Your task to perform on an android device: turn off notifications in google photos Image 0: 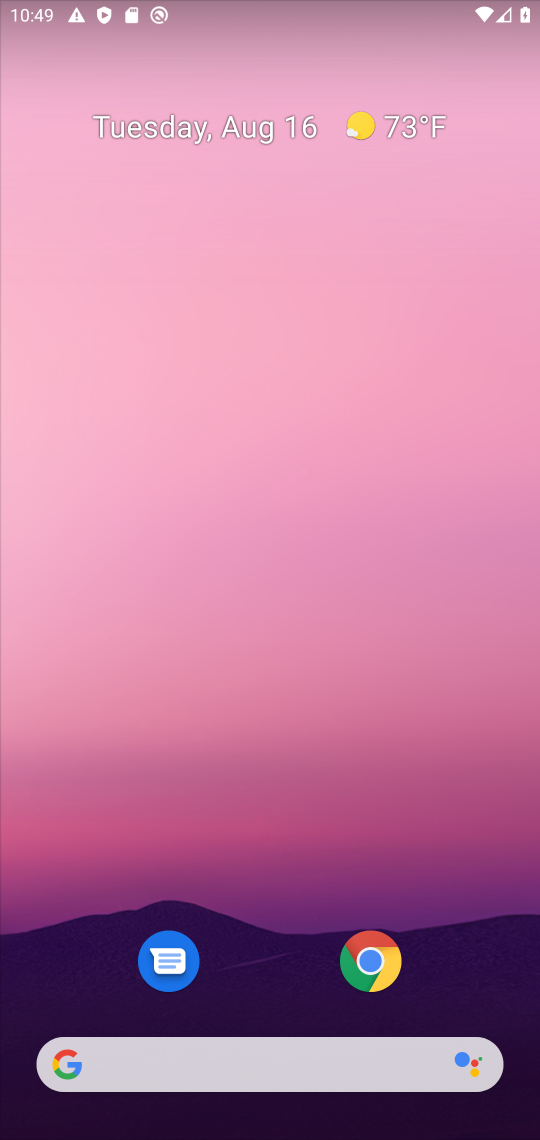
Step 0: drag from (265, 905) to (388, 181)
Your task to perform on an android device: turn off notifications in google photos Image 1: 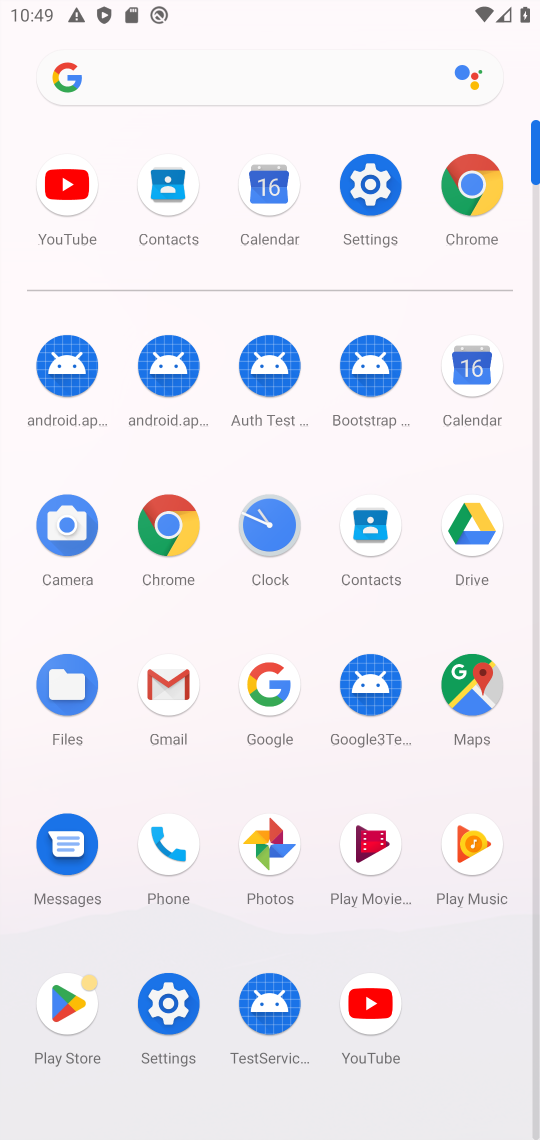
Step 1: task complete